Your task to perform on an android device: Search for sushi restaurants on Maps Image 0: 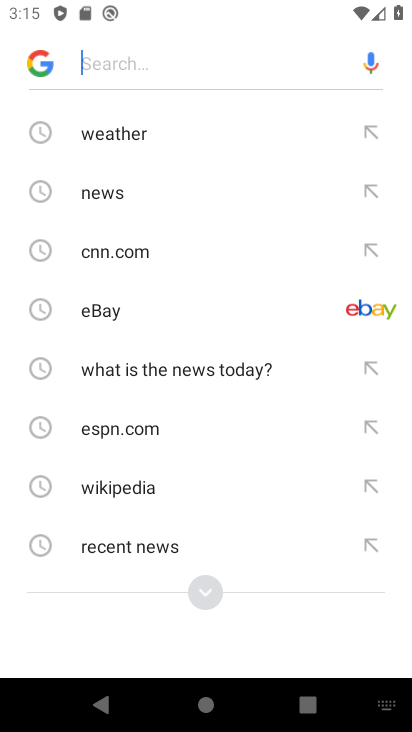
Step 0: press home button
Your task to perform on an android device: Search for sushi restaurants on Maps Image 1: 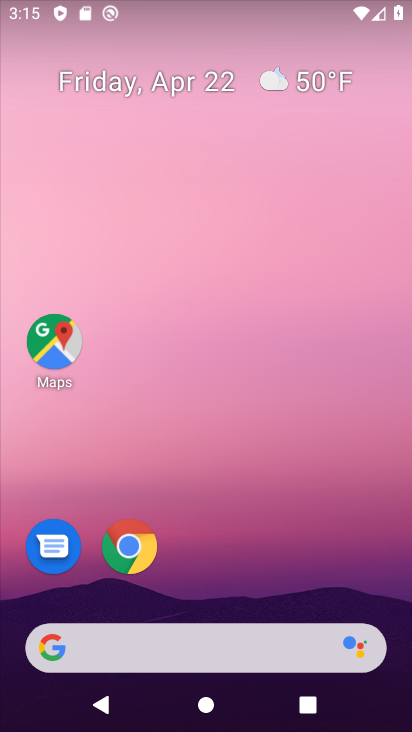
Step 1: drag from (261, 703) to (261, 3)
Your task to perform on an android device: Search for sushi restaurants on Maps Image 2: 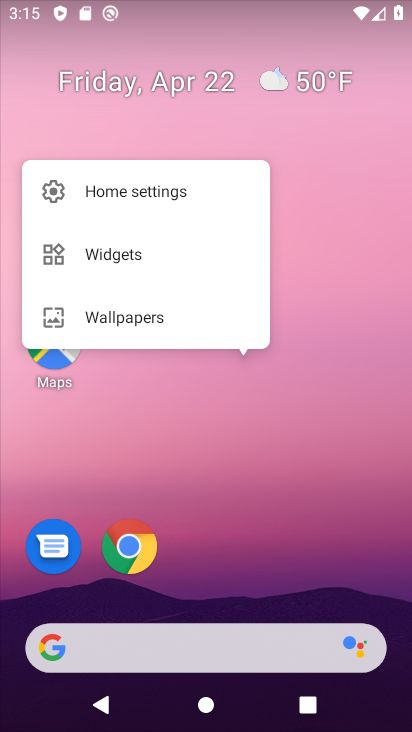
Step 2: drag from (238, 673) to (314, 79)
Your task to perform on an android device: Search for sushi restaurants on Maps Image 3: 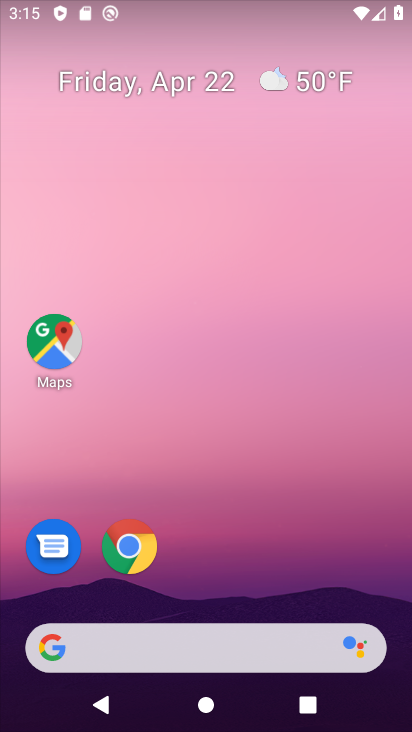
Step 3: drag from (252, 403) to (235, 170)
Your task to perform on an android device: Search for sushi restaurants on Maps Image 4: 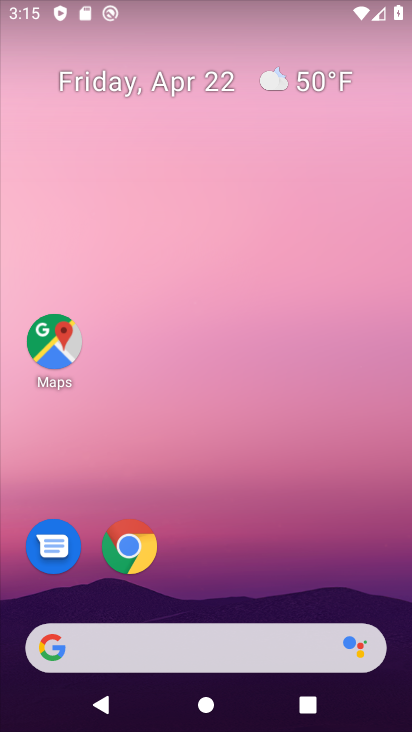
Step 4: drag from (273, 713) to (246, 492)
Your task to perform on an android device: Search for sushi restaurants on Maps Image 5: 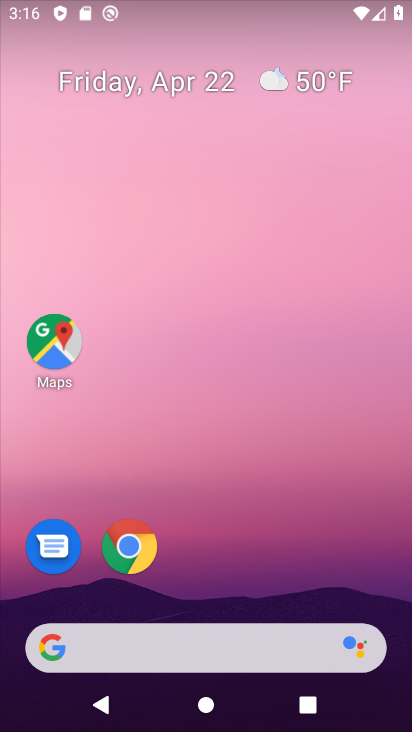
Step 5: drag from (238, 656) to (217, 324)
Your task to perform on an android device: Search for sushi restaurants on Maps Image 6: 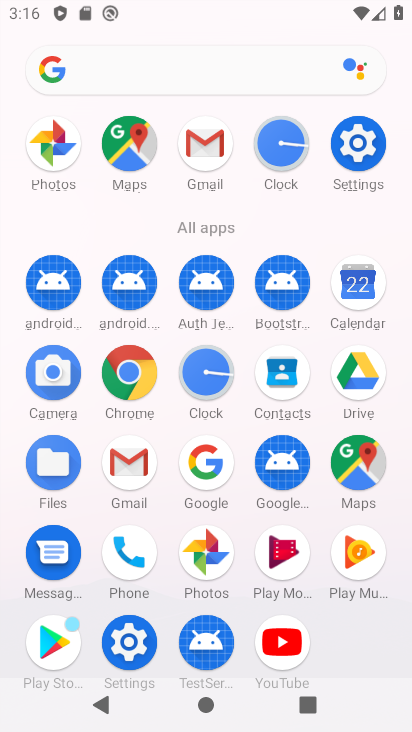
Step 6: click (355, 485)
Your task to perform on an android device: Search for sushi restaurants on Maps Image 7: 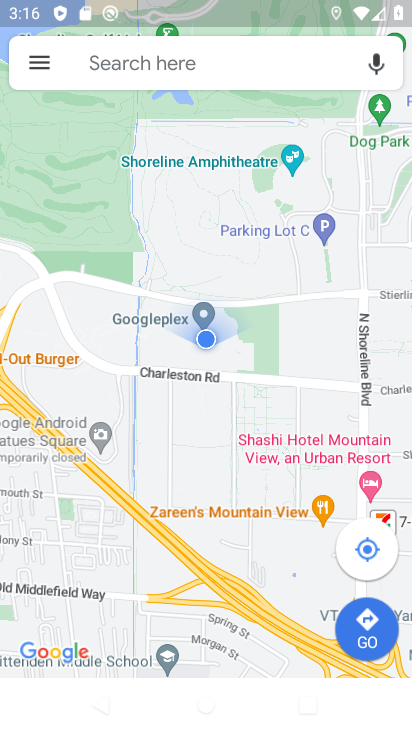
Step 7: click (188, 58)
Your task to perform on an android device: Search for sushi restaurants on Maps Image 8: 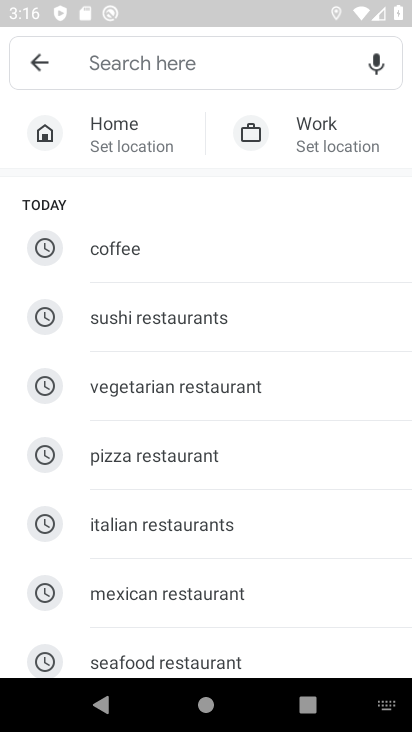
Step 8: type "shushi r"
Your task to perform on an android device: Search for sushi restaurants on Maps Image 9: 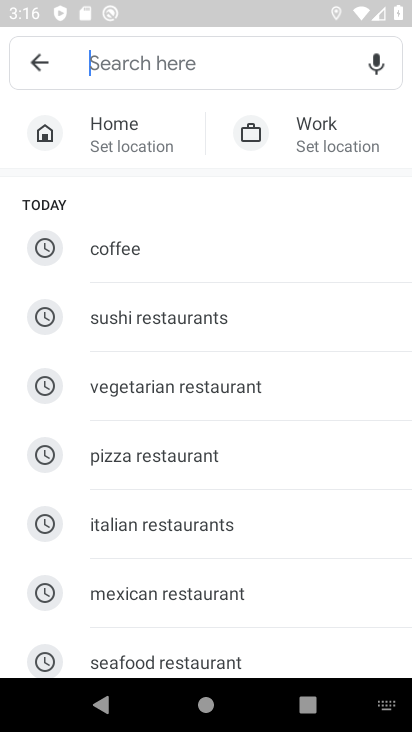
Step 9: click (218, 310)
Your task to perform on an android device: Search for sushi restaurants on Maps Image 10: 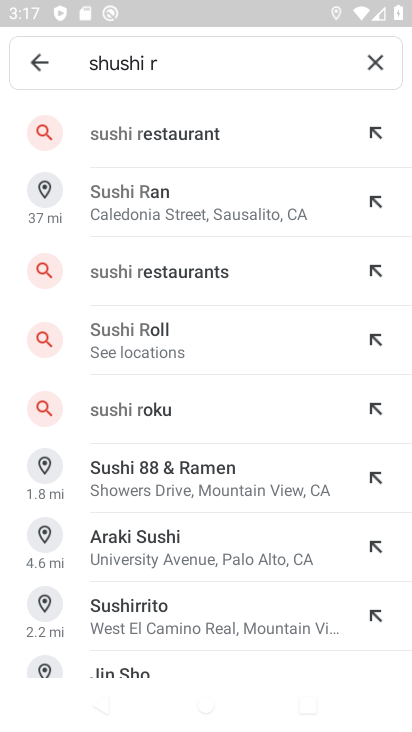
Step 10: click (216, 133)
Your task to perform on an android device: Search for sushi restaurants on Maps Image 11: 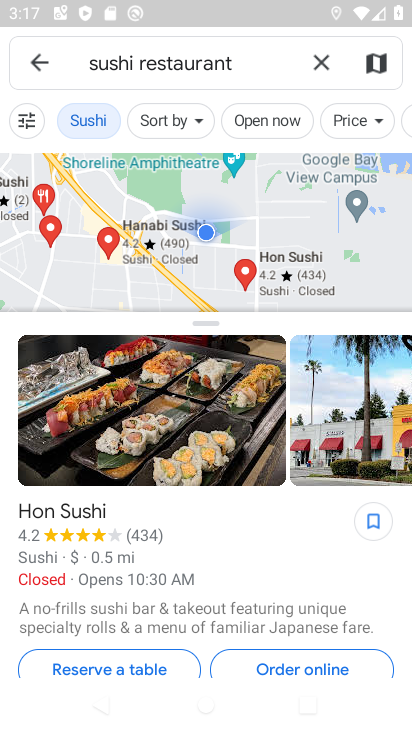
Step 11: task complete